Your task to perform on an android device: How much does the new iPad cost? Image 0: 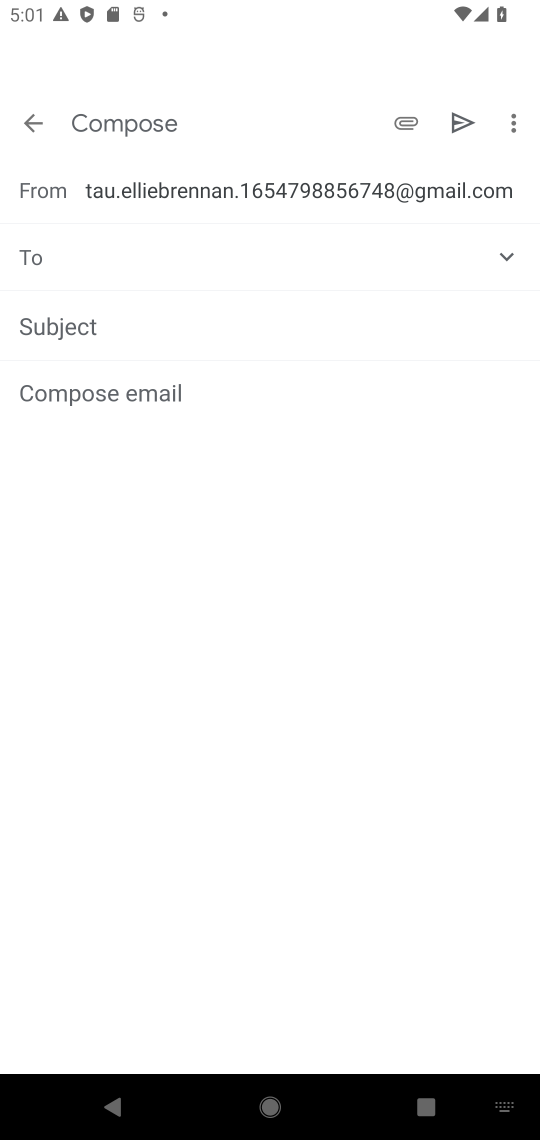
Step 0: press home button
Your task to perform on an android device: How much does the new iPad cost? Image 1: 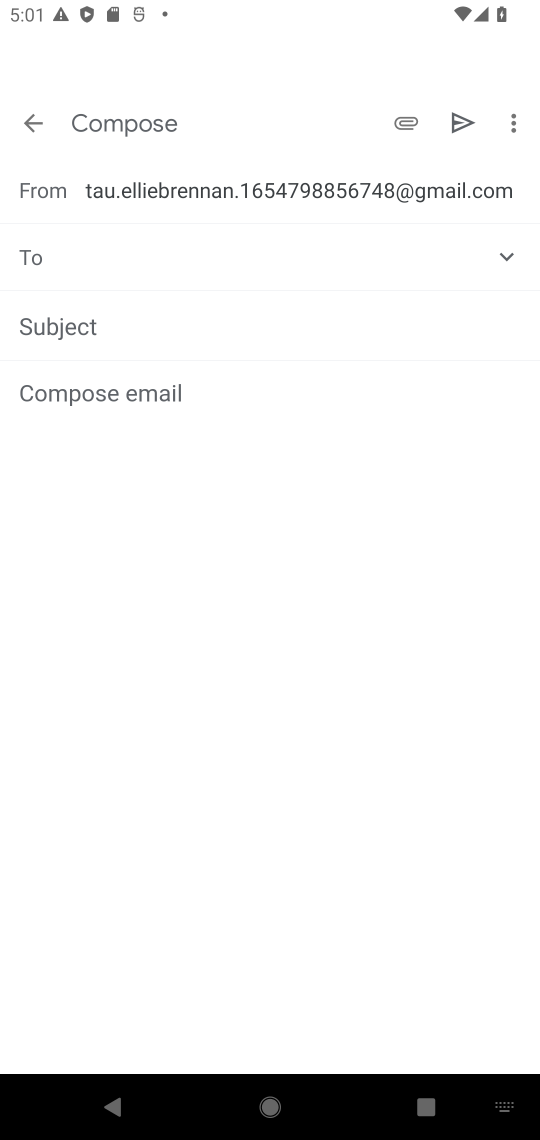
Step 1: press home button
Your task to perform on an android device: How much does the new iPad cost? Image 2: 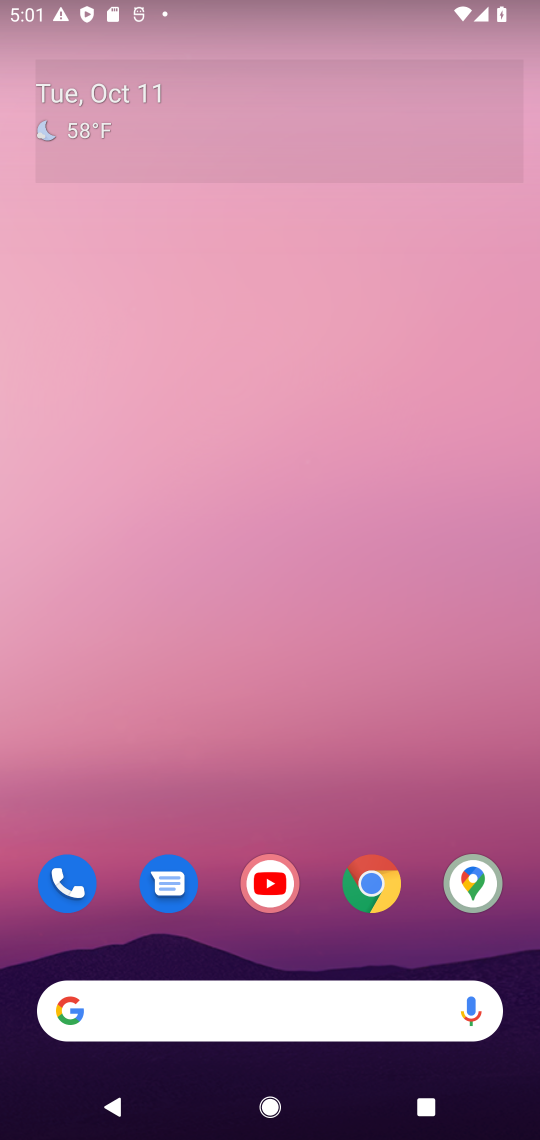
Step 2: drag from (404, 229) to (429, 97)
Your task to perform on an android device: How much does the new iPad cost? Image 3: 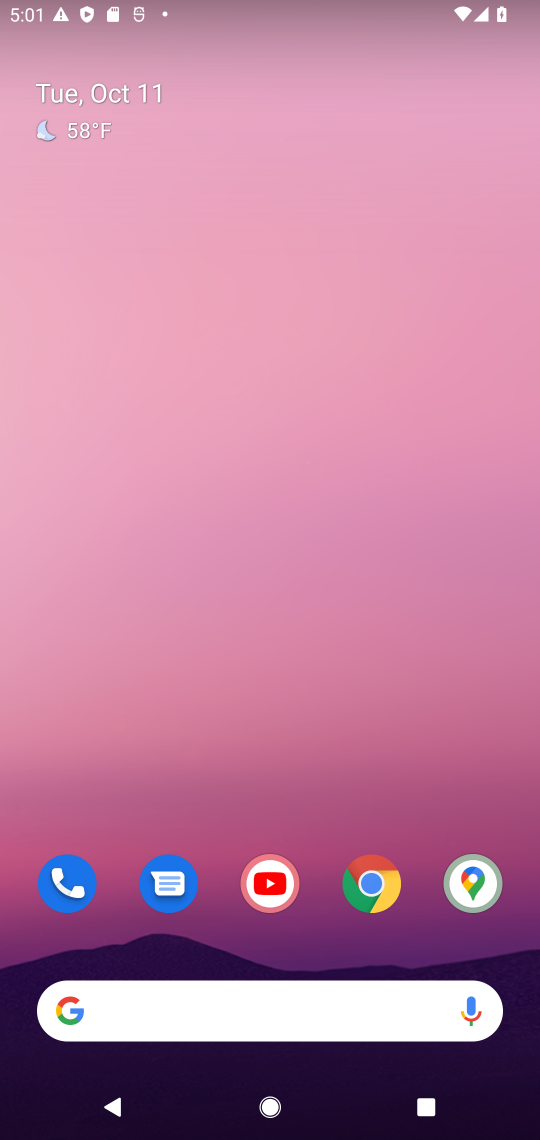
Step 3: drag from (320, 963) to (300, 80)
Your task to perform on an android device: How much does the new iPad cost? Image 4: 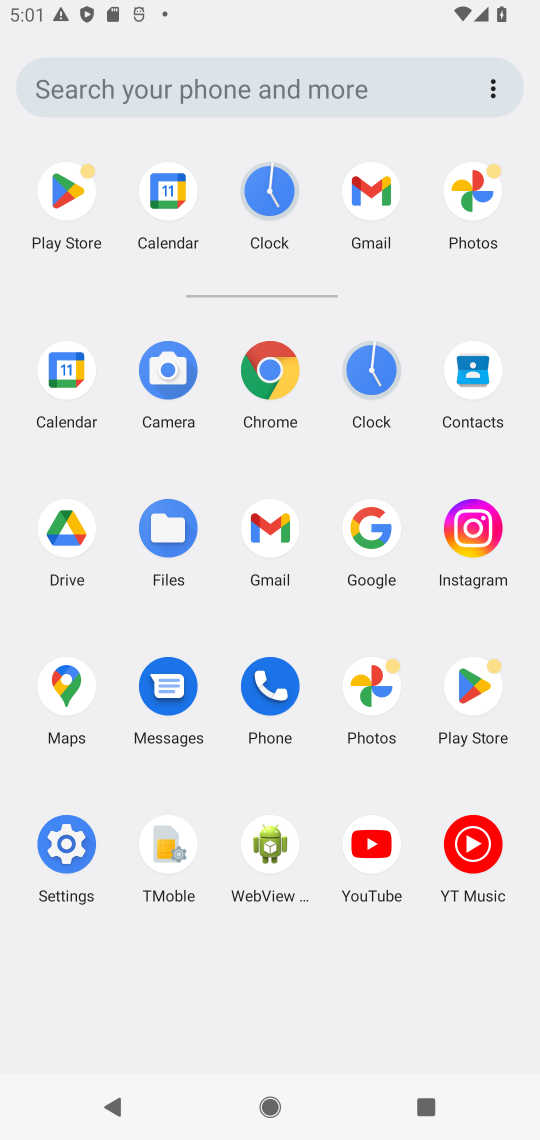
Step 4: click (270, 360)
Your task to perform on an android device: How much does the new iPad cost? Image 5: 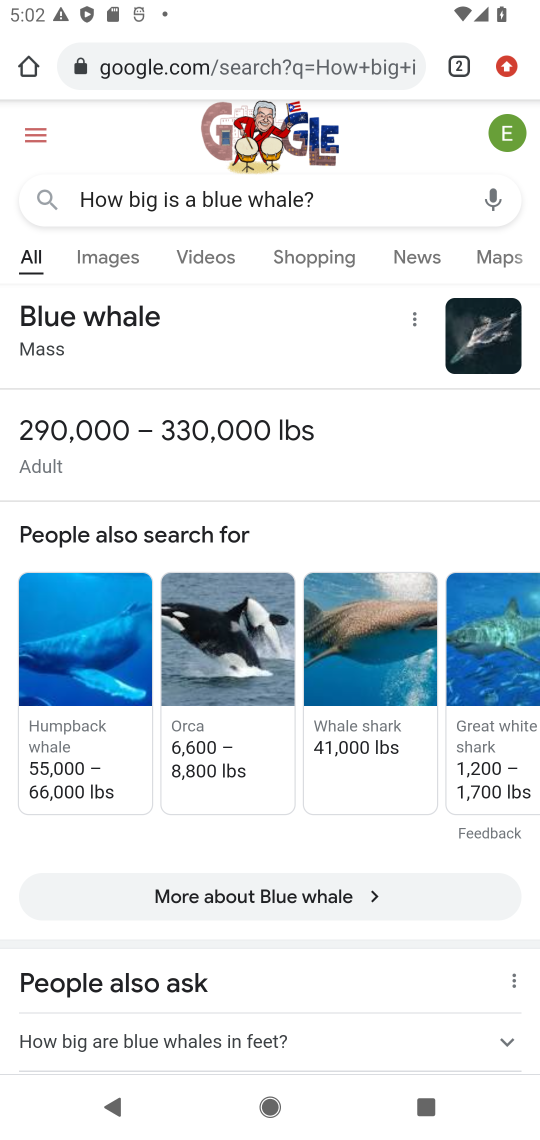
Step 5: click (275, 63)
Your task to perform on an android device: How much does the new iPad cost? Image 6: 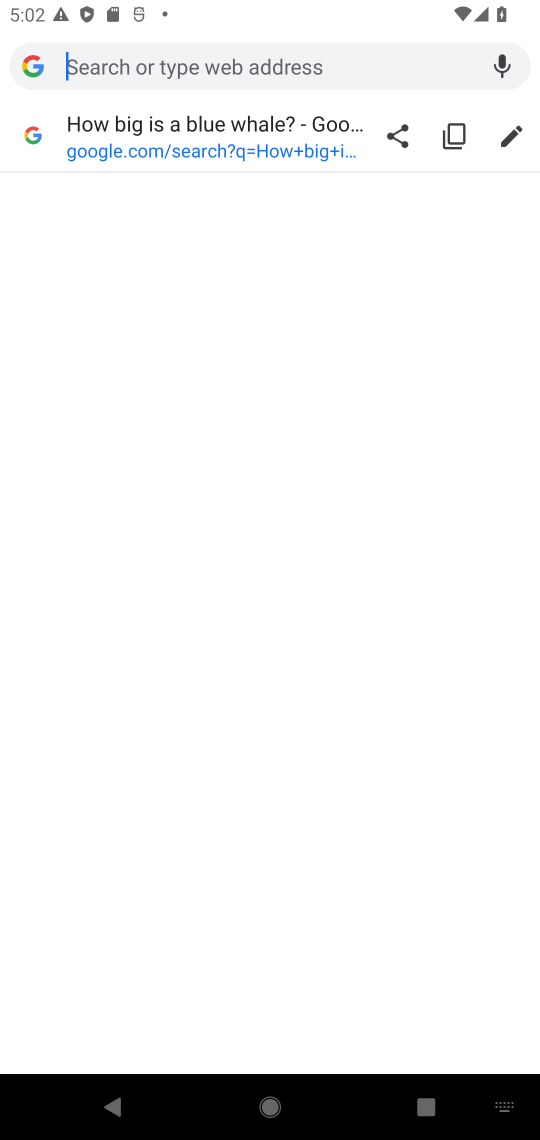
Step 6: type "How much does the new iPad cost?"
Your task to perform on an android device: How much does the new iPad cost? Image 7: 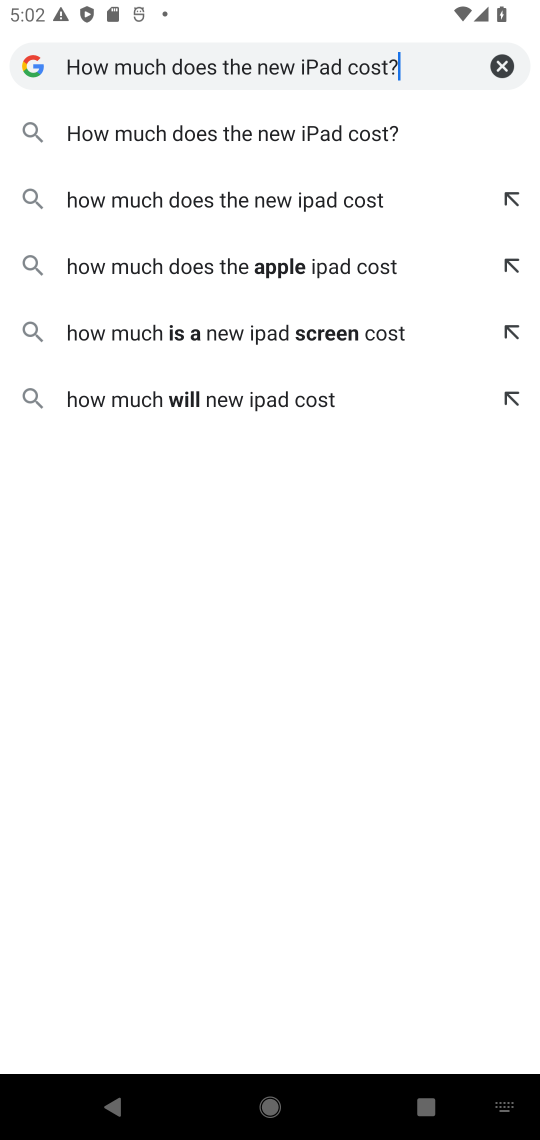
Step 7: press enter
Your task to perform on an android device: How much does the new iPad cost? Image 8: 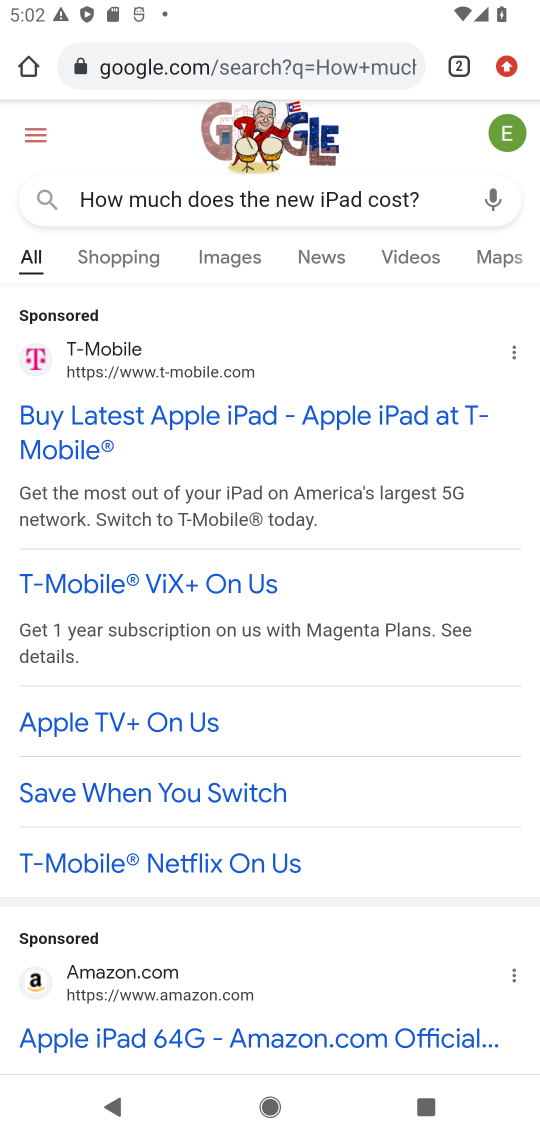
Step 8: task complete